Your task to perform on an android device: set the timer Image 0: 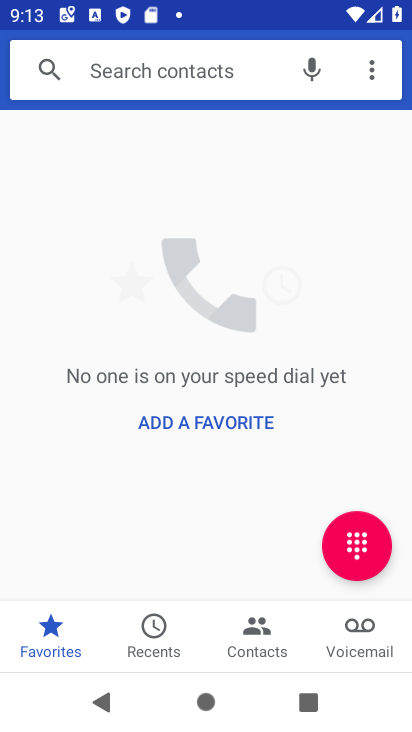
Step 0: press back button
Your task to perform on an android device: set the timer Image 1: 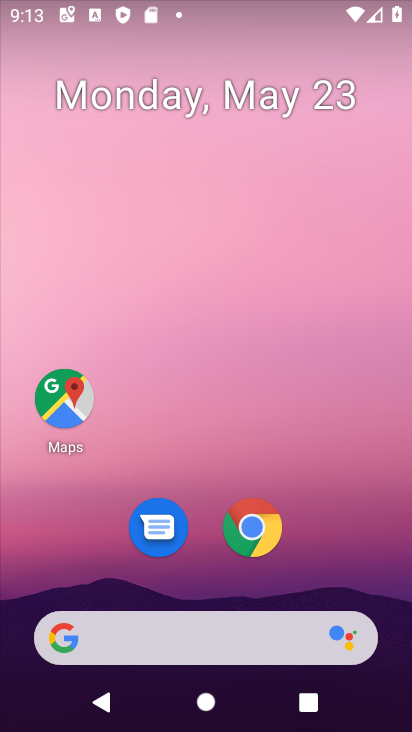
Step 1: drag from (311, 550) to (274, 0)
Your task to perform on an android device: set the timer Image 2: 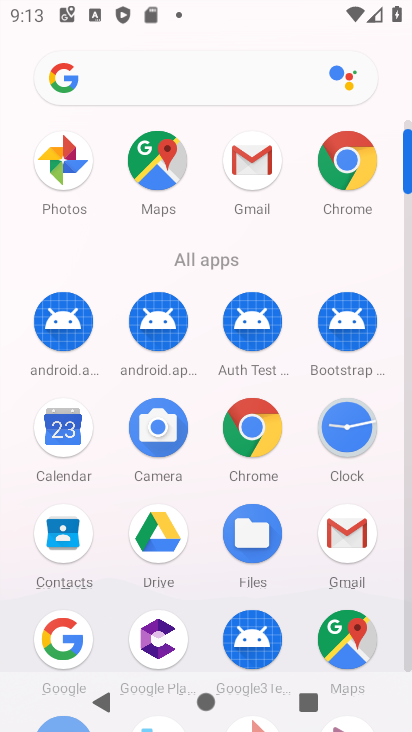
Step 2: drag from (4, 542) to (47, 152)
Your task to perform on an android device: set the timer Image 3: 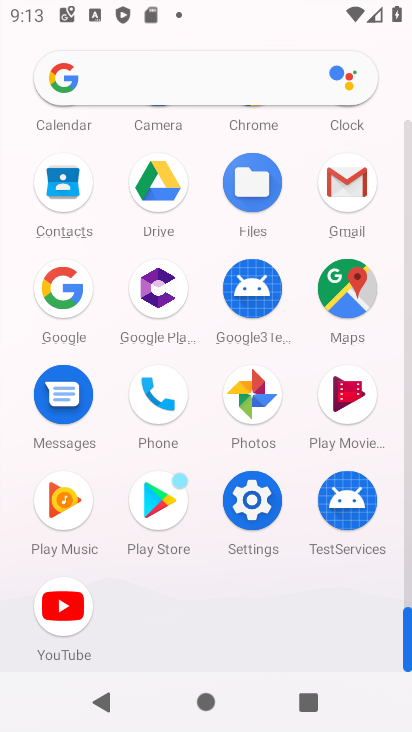
Step 3: drag from (27, 189) to (1, 493)
Your task to perform on an android device: set the timer Image 4: 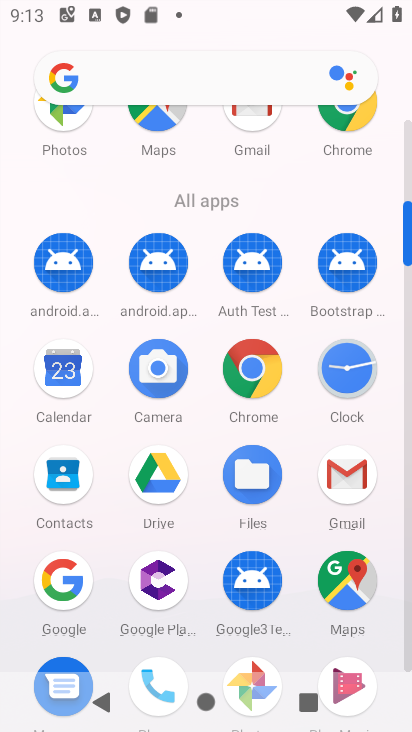
Step 4: click (345, 369)
Your task to perform on an android device: set the timer Image 5: 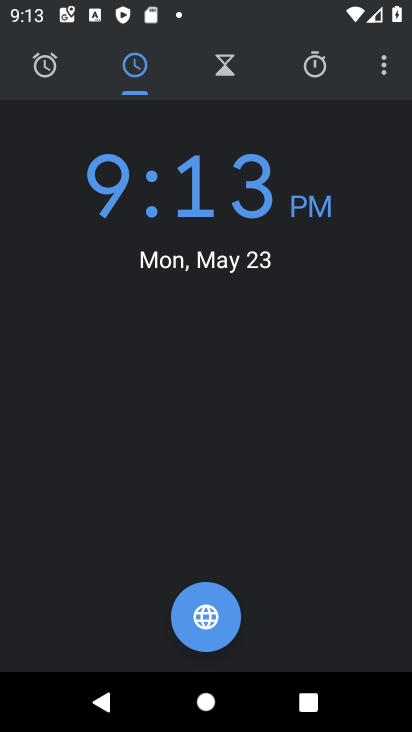
Step 5: click (58, 73)
Your task to perform on an android device: set the timer Image 6: 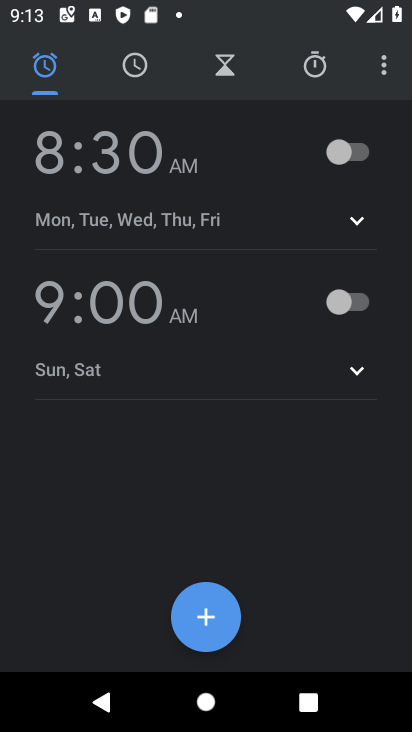
Step 6: click (218, 609)
Your task to perform on an android device: set the timer Image 7: 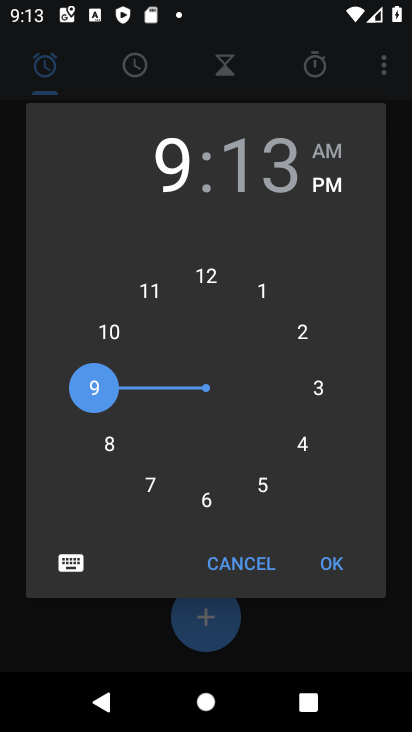
Step 7: click (322, 552)
Your task to perform on an android device: set the timer Image 8: 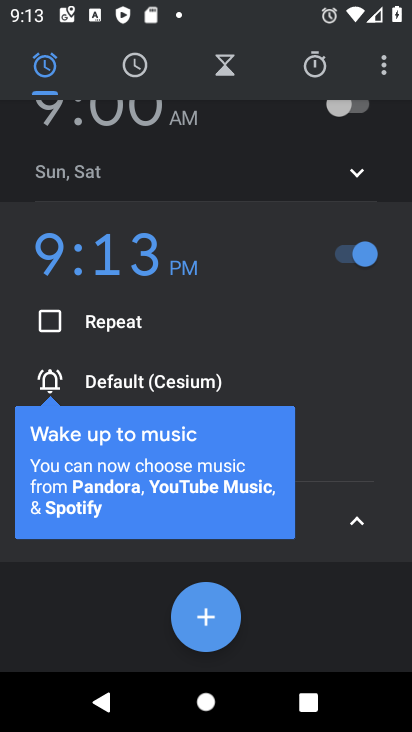
Step 8: task complete